Your task to perform on an android device: What's the weather? Image 0: 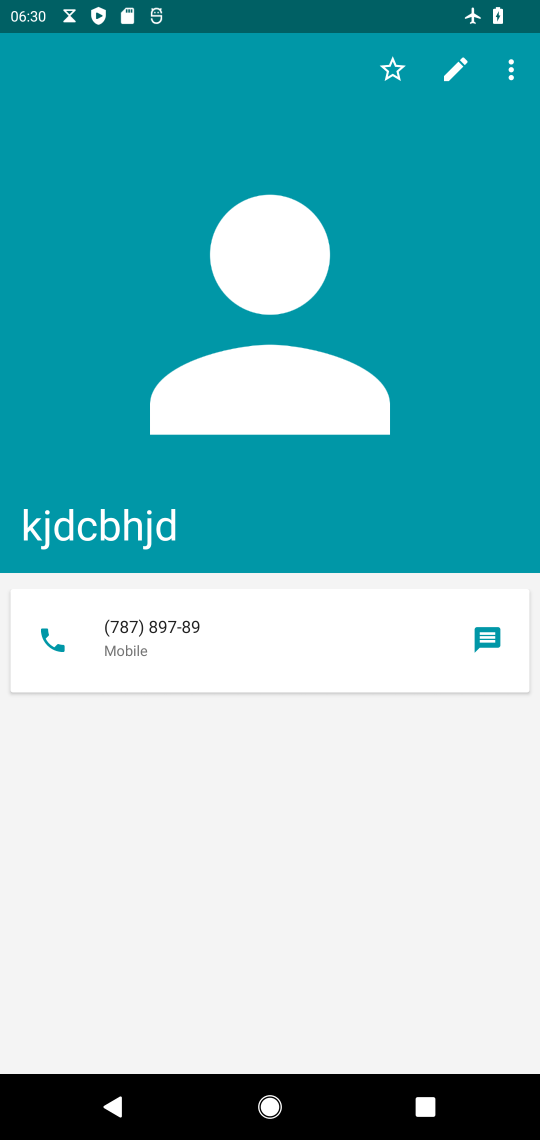
Step 0: press home button
Your task to perform on an android device: What's the weather? Image 1: 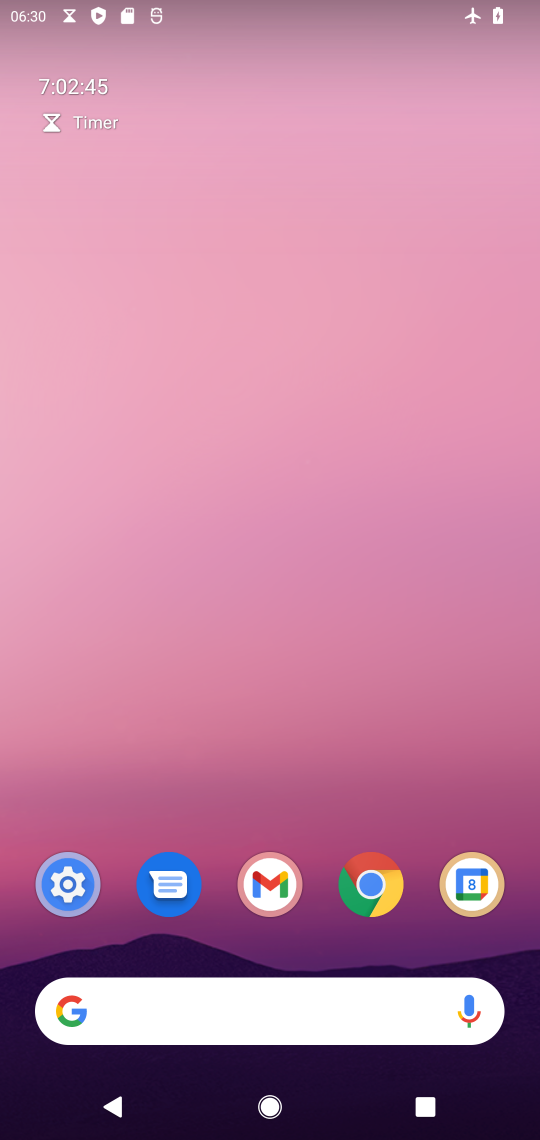
Step 1: click (365, 912)
Your task to perform on an android device: What's the weather? Image 2: 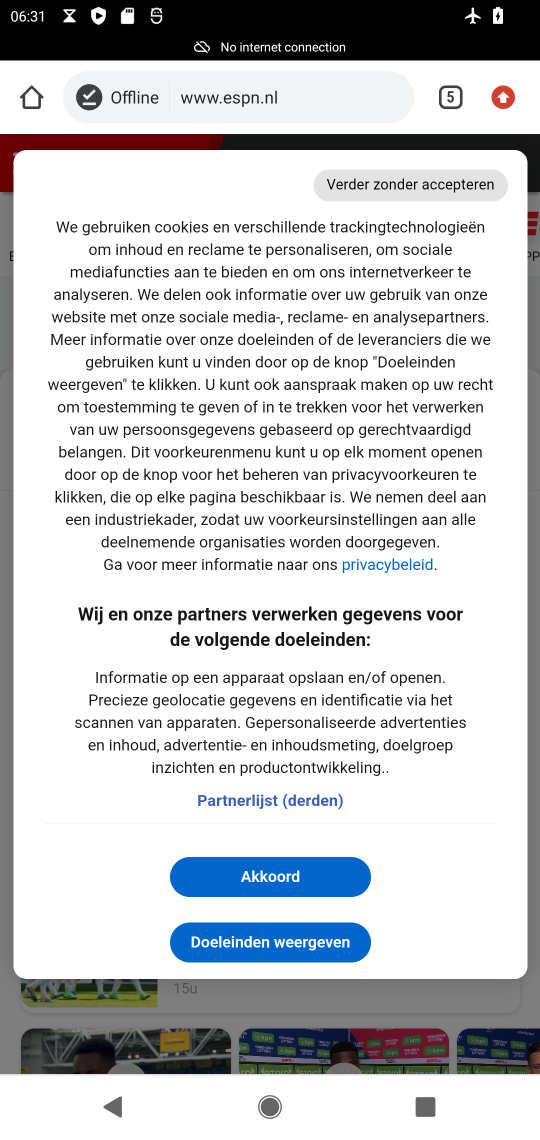
Step 2: click (297, 107)
Your task to perform on an android device: What's the weather? Image 3: 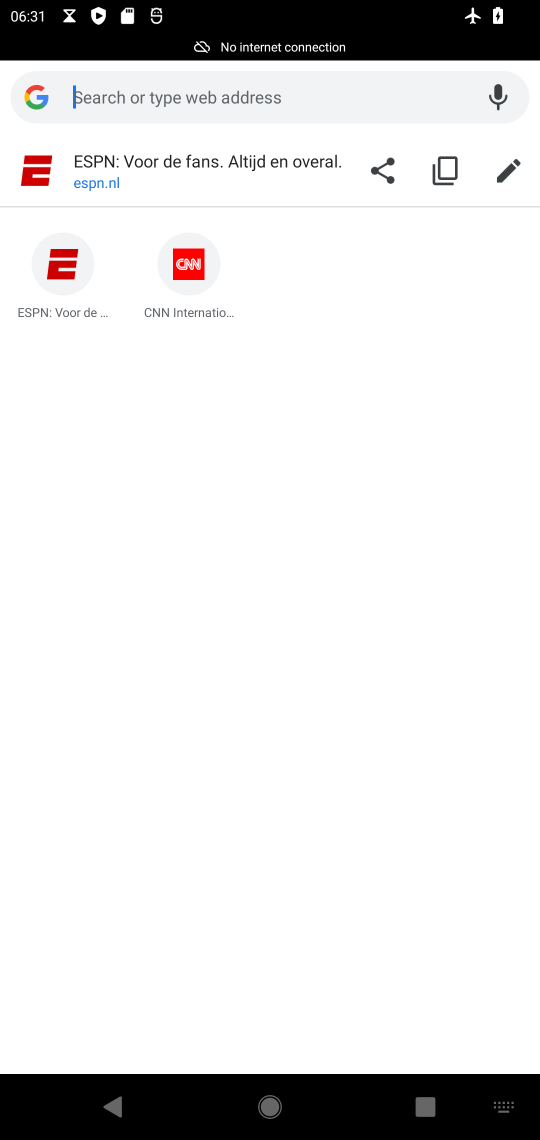
Step 3: type "What's the weather?"
Your task to perform on an android device: What's the weather? Image 4: 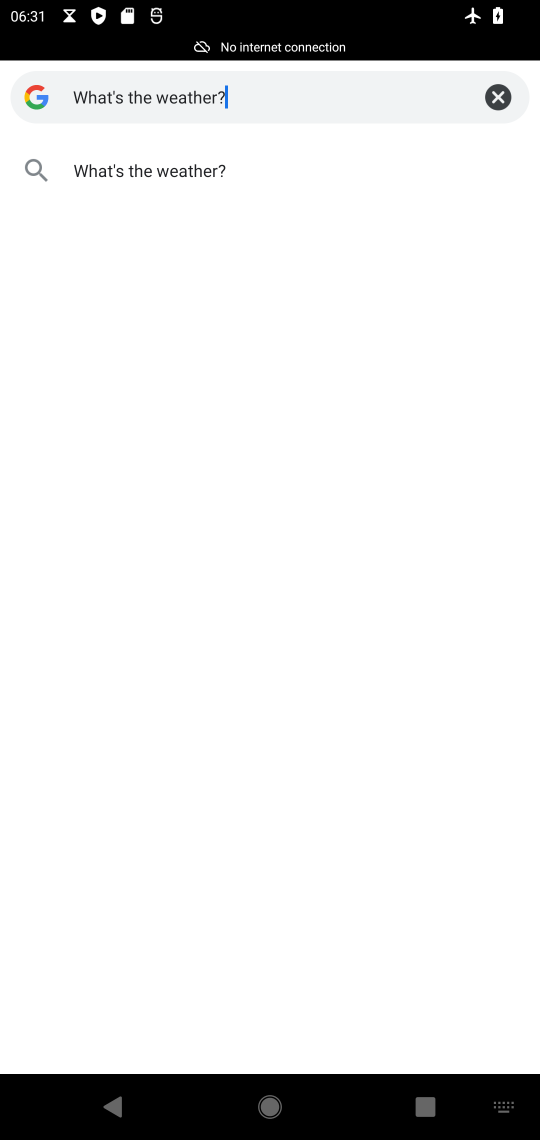
Step 4: click (115, 178)
Your task to perform on an android device: What's the weather? Image 5: 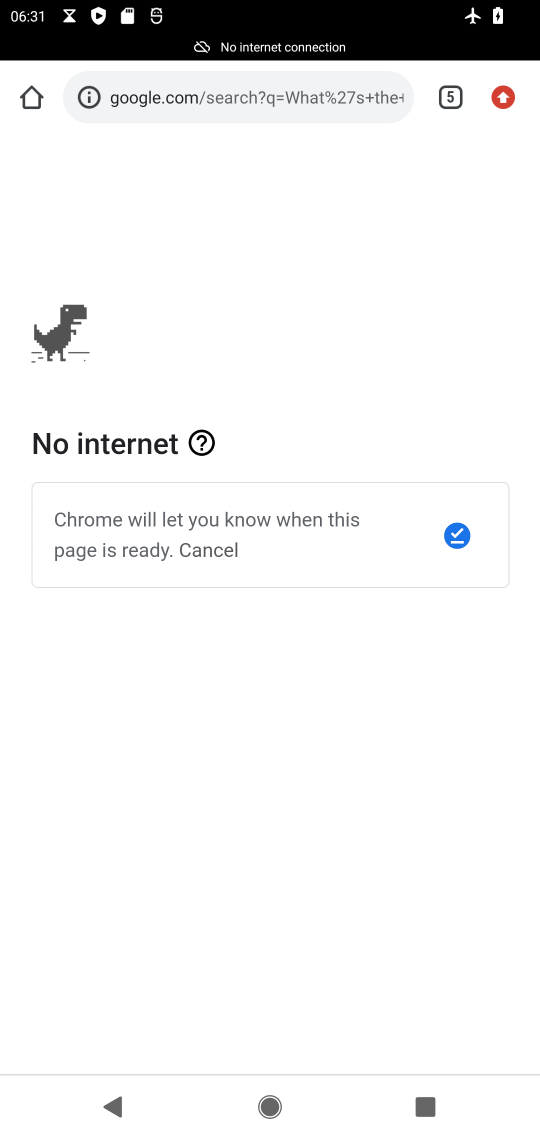
Step 5: task complete